Your task to perform on an android device: Do I have any events this weekend? Image 0: 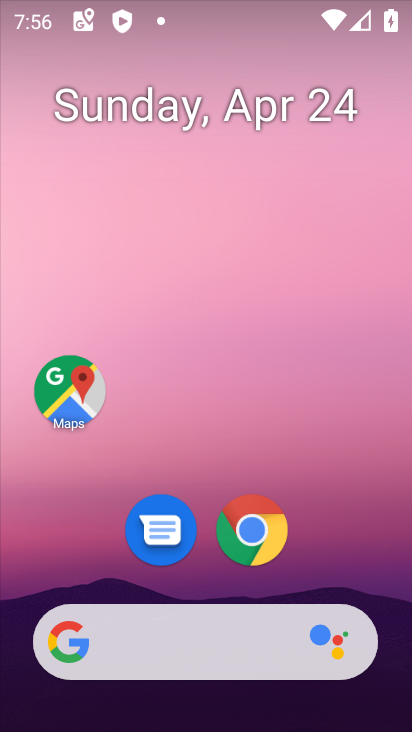
Step 0: click (127, 115)
Your task to perform on an android device: Do I have any events this weekend? Image 1: 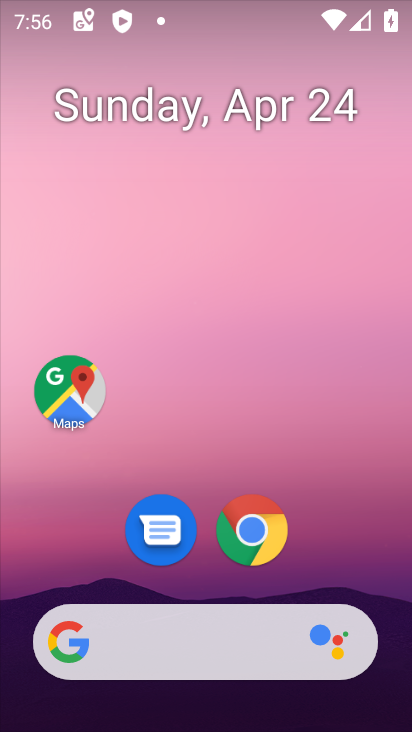
Step 1: click (187, 109)
Your task to perform on an android device: Do I have any events this weekend? Image 2: 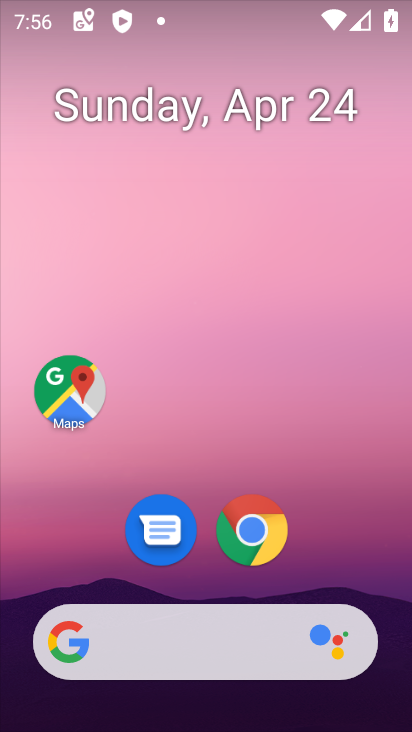
Step 2: click (187, 109)
Your task to perform on an android device: Do I have any events this weekend? Image 3: 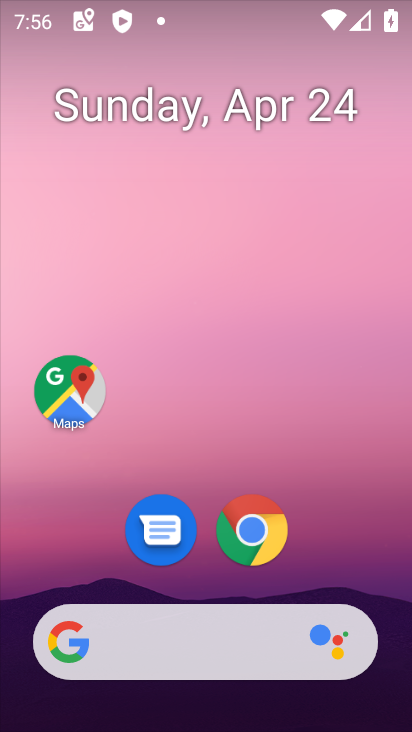
Step 3: click (273, 104)
Your task to perform on an android device: Do I have any events this weekend? Image 4: 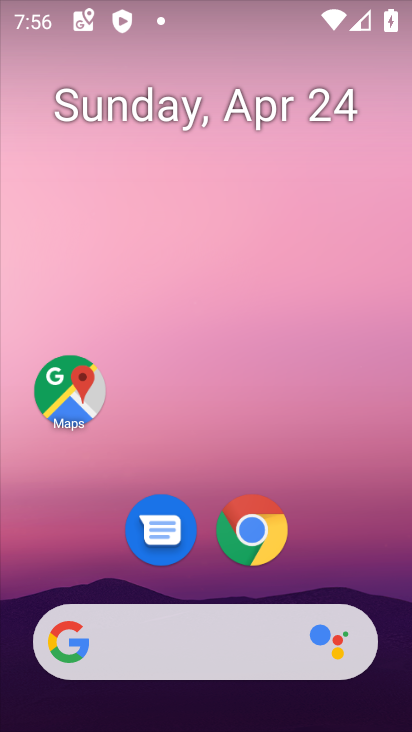
Step 4: click (273, 104)
Your task to perform on an android device: Do I have any events this weekend? Image 5: 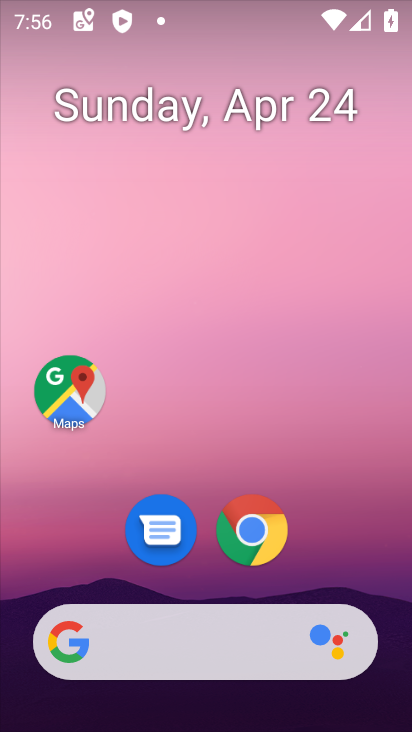
Step 5: click (172, 96)
Your task to perform on an android device: Do I have any events this weekend? Image 6: 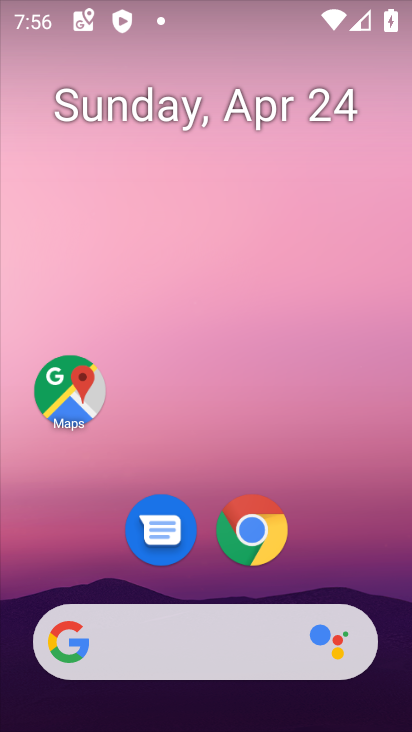
Step 6: drag from (225, 583) to (207, 7)
Your task to perform on an android device: Do I have any events this weekend? Image 7: 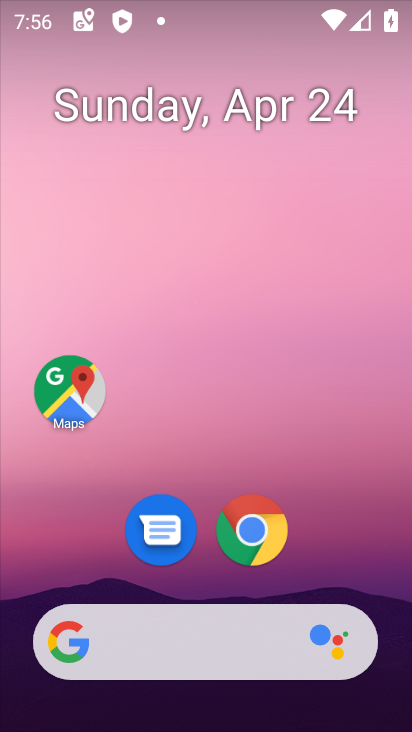
Step 7: drag from (200, 584) to (194, 23)
Your task to perform on an android device: Do I have any events this weekend? Image 8: 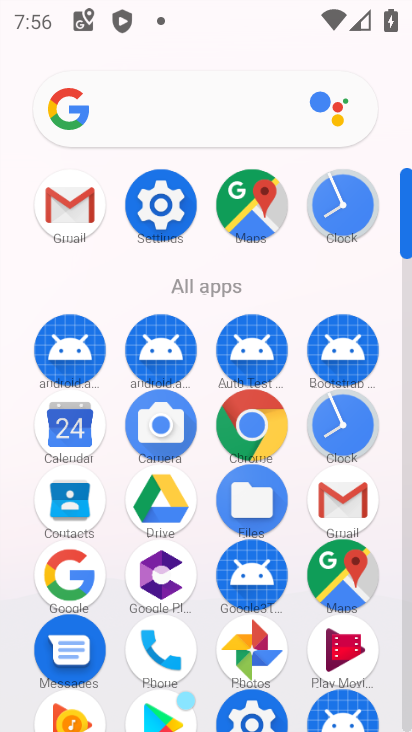
Step 8: click (82, 431)
Your task to perform on an android device: Do I have any events this weekend? Image 9: 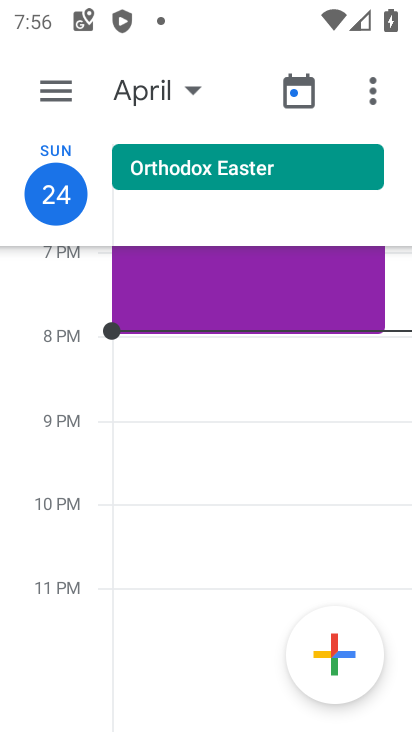
Step 9: click (76, 84)
Your task to perform on an android device: Do I have any events this weekend? Image 10: 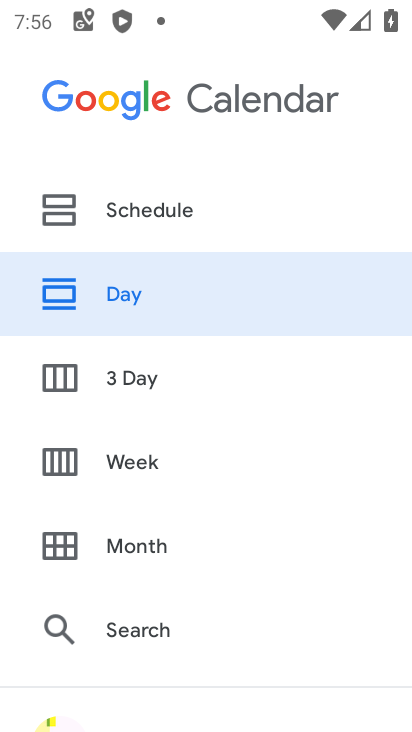
Step 10: click (361, 74)
Your task to perform on an android device: Do I have any events this weekend? Image 11: 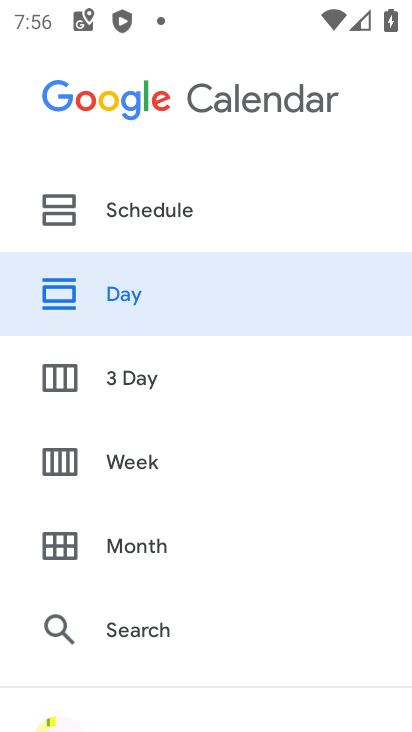
Step 11: click (361, 74)
Your task to perform on an android device: Do I have any events this weekend? Image 12: 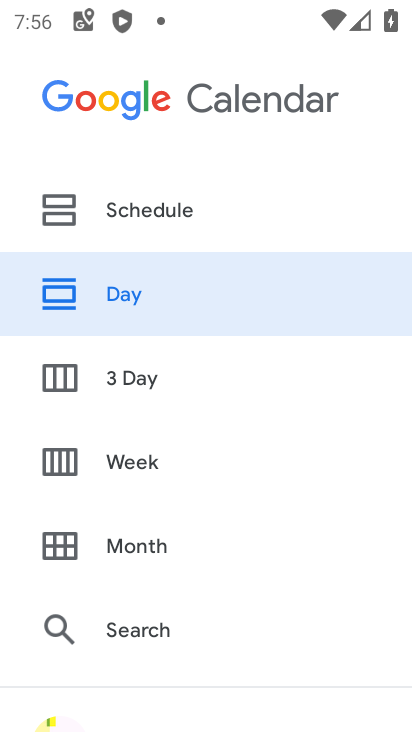
Step 12: press back button
Your task to perform on an android device: Do I have any events this weekend? Image 13: 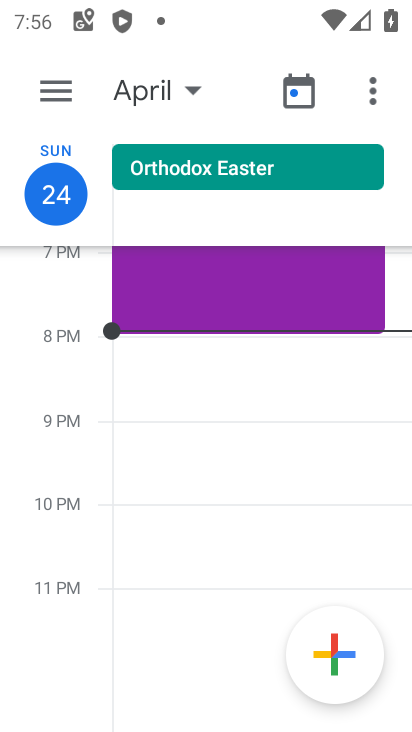
Step 13: click (166, 102)
Your task to perform on an android device: Do I have any events this weekend? Image 14: 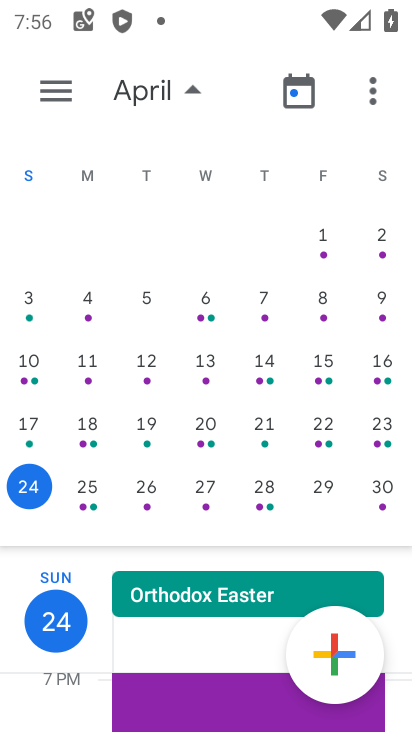
Step 14: click (386, 493)
Your task to perform on an android device: Do I have any events this weekend? Image 15: 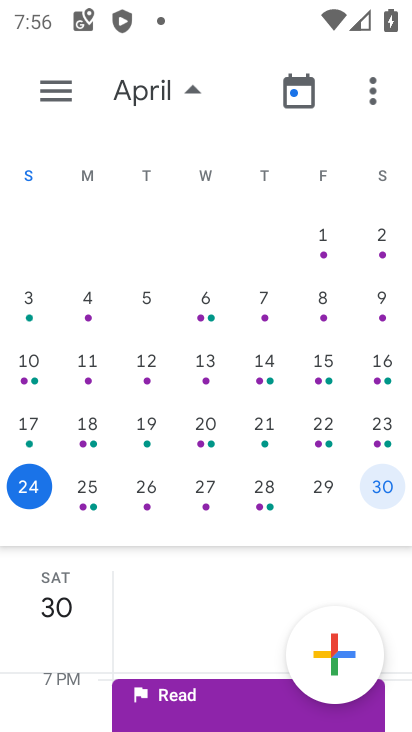
Step 15: click (153, 712)
Your task to perform on an android device: Do I have any events this weekend? Image 16: 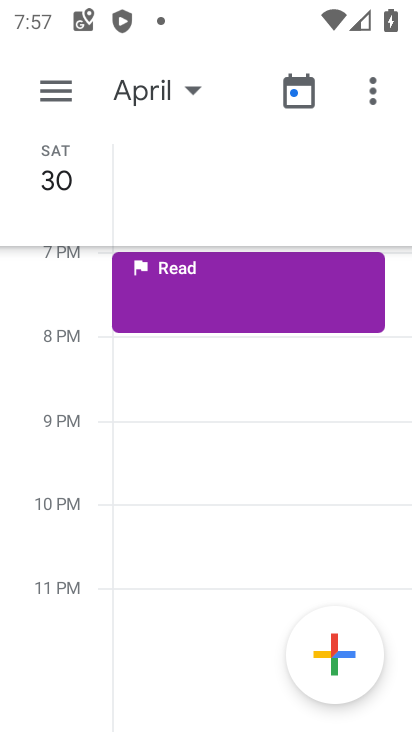
Step 16: task complete